Your task to perform on an android device: Open Yahoo.com Image 0: 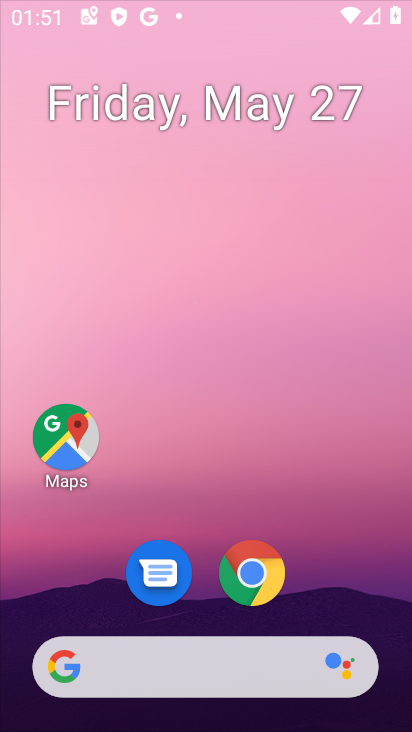
Step 0: drag from (187, 589) to (118, 35)
Your task to perform on an android device: Open Yahoo.com Image 1: 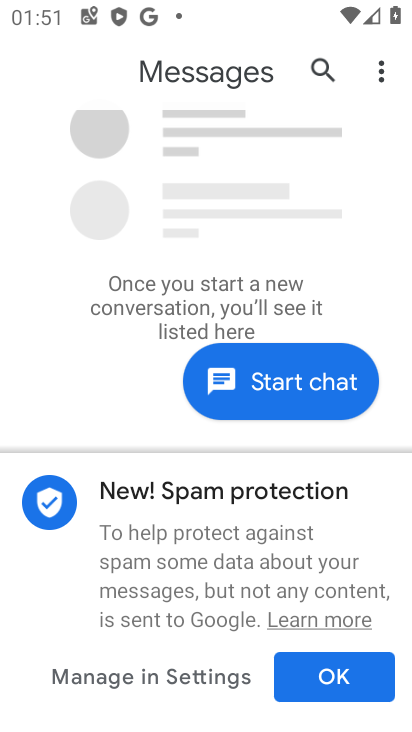
Step 1: press home button
Your task to perform on an android device: Open Yahoo.com Image 2: 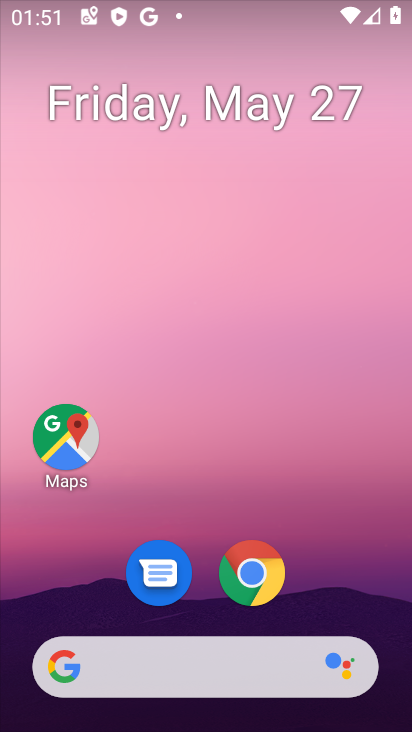
Step 2: click (259, 565)
Your task to perform on an android device: Open Yahoo.com Image 3: 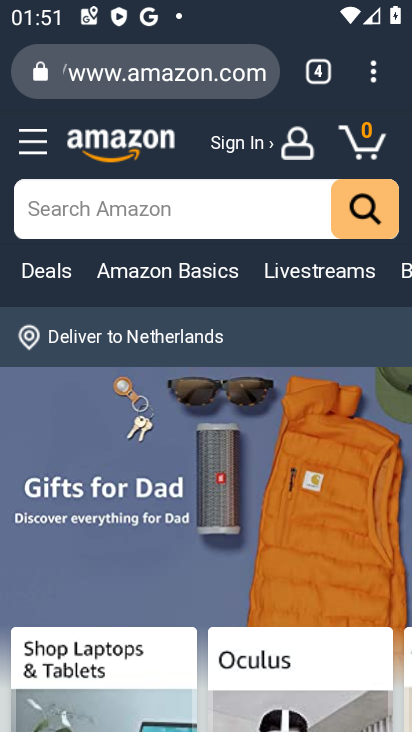
Step 3: click (299, 75)
Your task to perform on an android device: Open Yahoo.com Image 4: 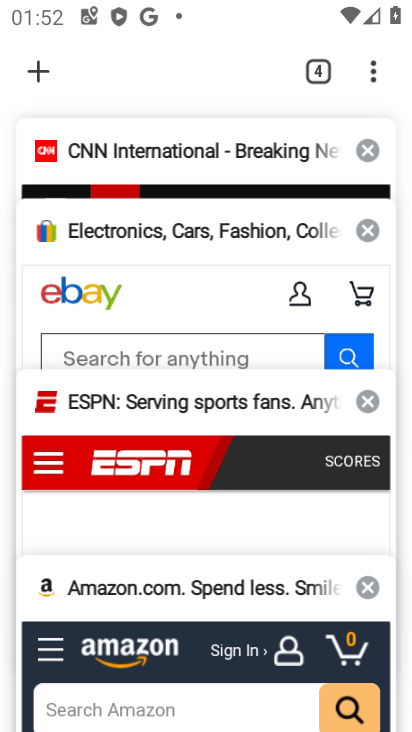
Step 4: click (32, 69)
Your task to perform on an android device: Open Yahoo.com Image 5: 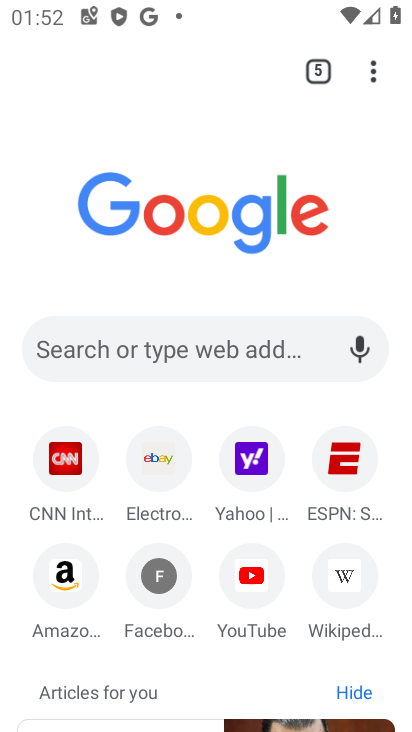
Step 5: click (249, 485)
Your task to perform on an android device: Open Yahoo.com Image 6: 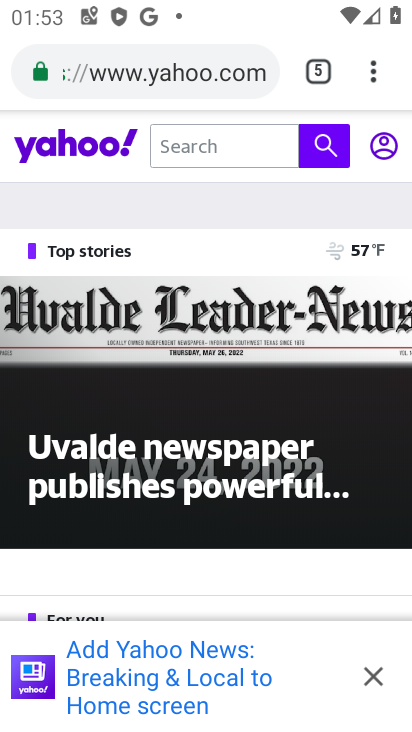
Step 6: task complete